Your task to perform on an android device: Open the map Image 0: 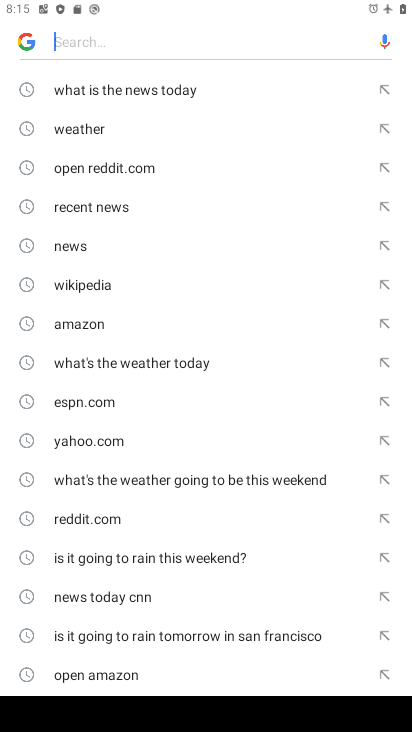
Step 0: press home button
Your task to perform on an android device: Open the map Image 1: 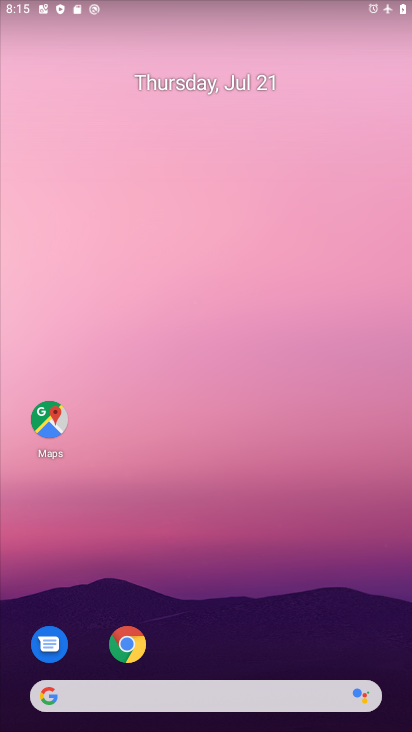
Step 1: click (49, 431)
Your task to perform on an android device: Open the map Image 2: 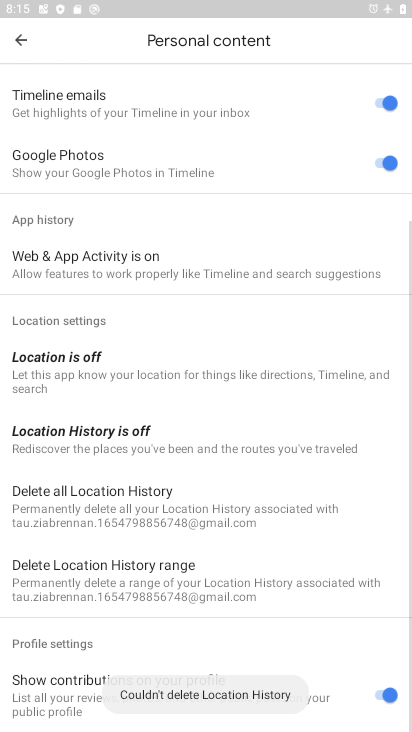
Step 2: click (22, 32)
Your task to perform on an android device: Open the map Image 3: 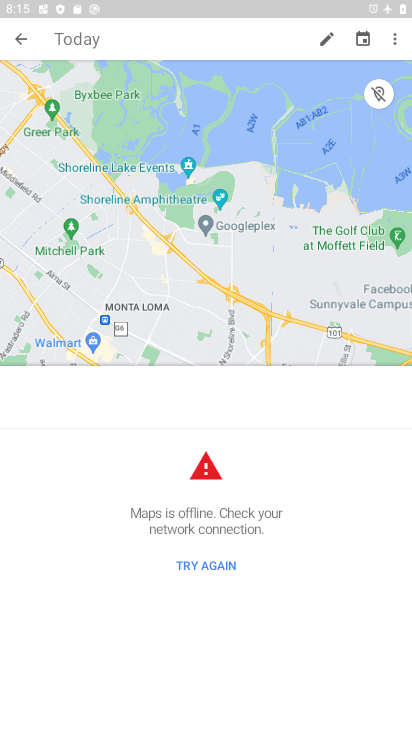
Step 3: click (22, 32)
Your task to perform on an android device: Open the map Image 4: 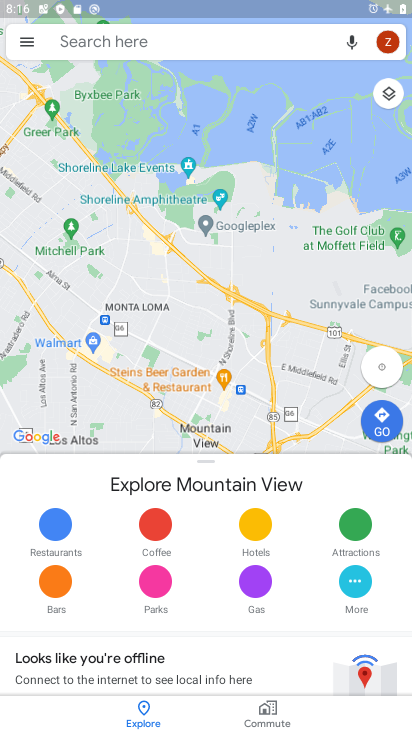
Step 4: task complete